Your task to perform on an android device: find which apps use the phone's location Image 0: 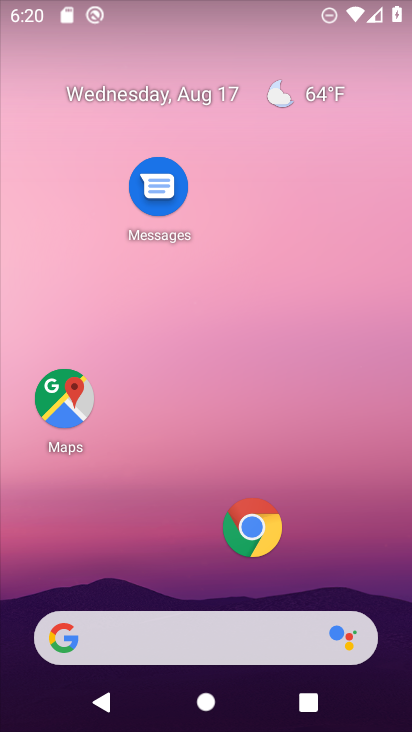
Step 0: drag from (152, 614) to (202, 253)
Your task to perform on an android device: find which apps use the phone's location Image 1: 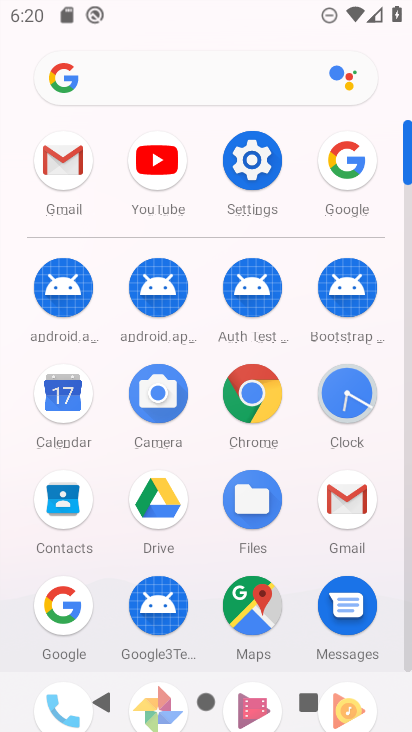
Step 1: click (241, 165)
Your task to perform on an android device: find which apps use the phone's location Image 2: 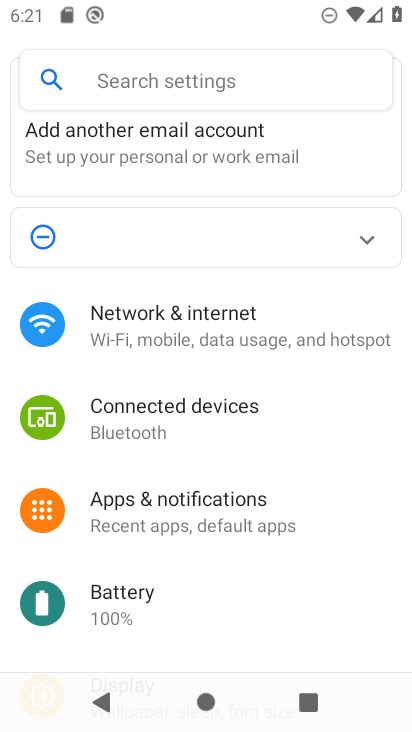
Step 2: drag from (183, 646) to (177, 344)
Your task to perform on an android device: find which apps use the phone's location Image 3: 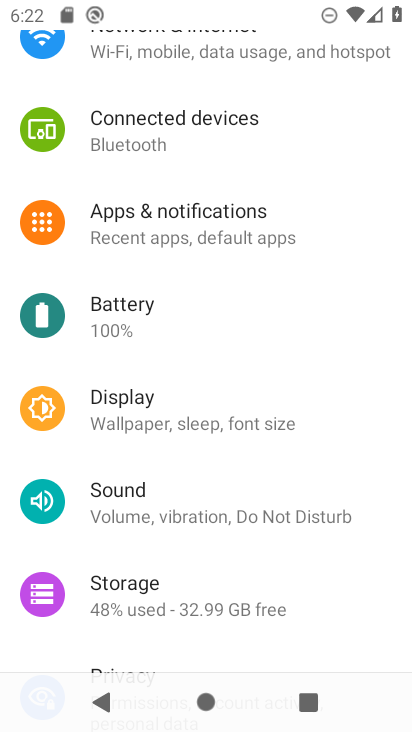
Step 3: drag from (162, 123) to (106, 519)
Your task to perform on an android device: find which apps use the phone's location Image 4: 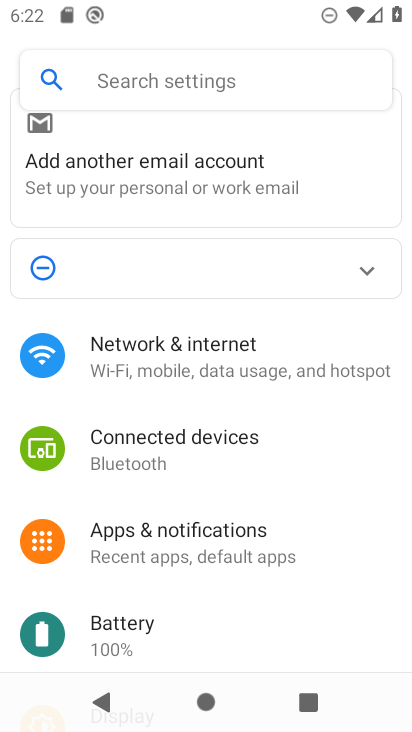
Step 4: drag from (136, 607) to (106, 244)
Your task to perform on an android device: find which apps use the phone's location Image 5: 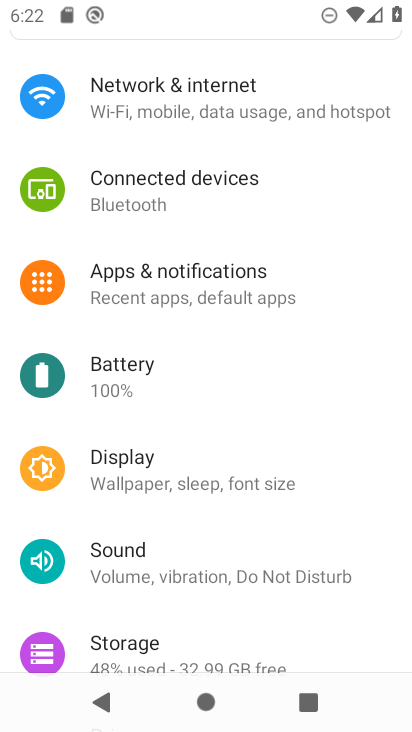
Step 5: drag from (135, 638) to (102, 230)
Your task to perform on an android device: find which apps use the phone's location Image 6: 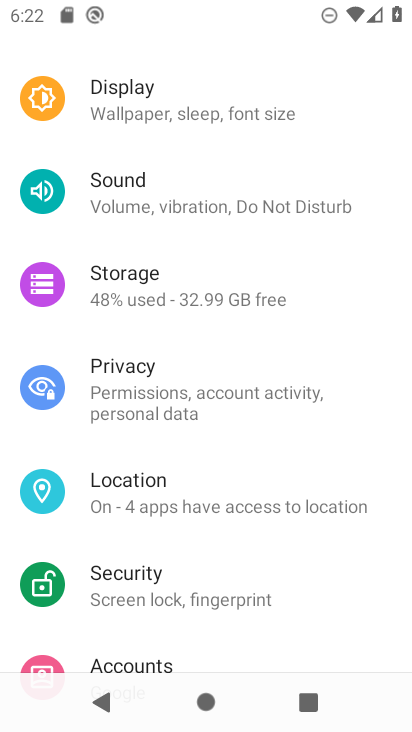
Step 6: click (104, 484)
Your task to perform on an android device: find which apps use the phone's location Image 7: 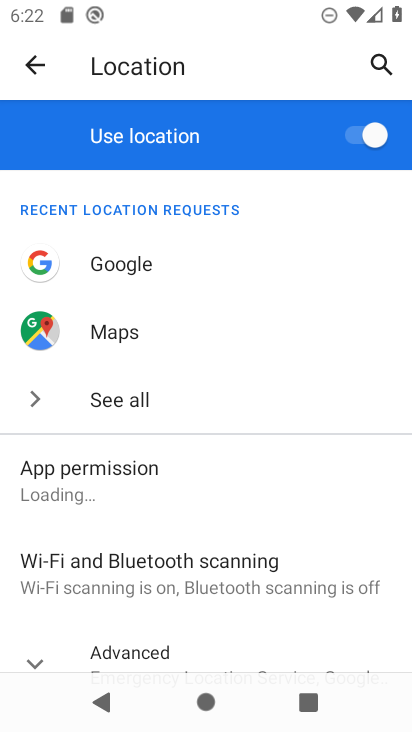
Step 7: drag from (84, 573) to (81, 240)
Your task to perform on an android device: find which apps use the phone's location Image 8: 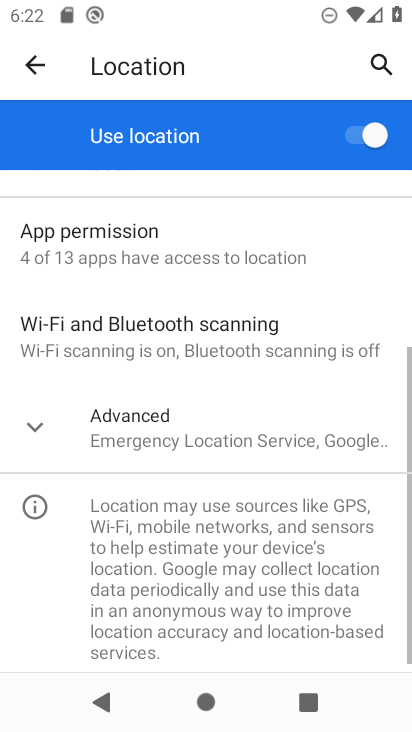
Step 8: click (81, 424)
Your task to perform on an android device: find which apps use the phone's location Image 9: 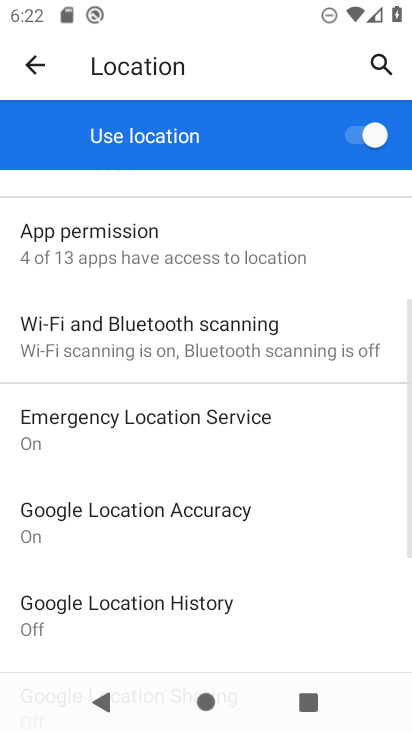
Step 9: drag from (94, 632) to (90, 259)
Your task to perform on an android device: find which apps use the phone's location Image 10: 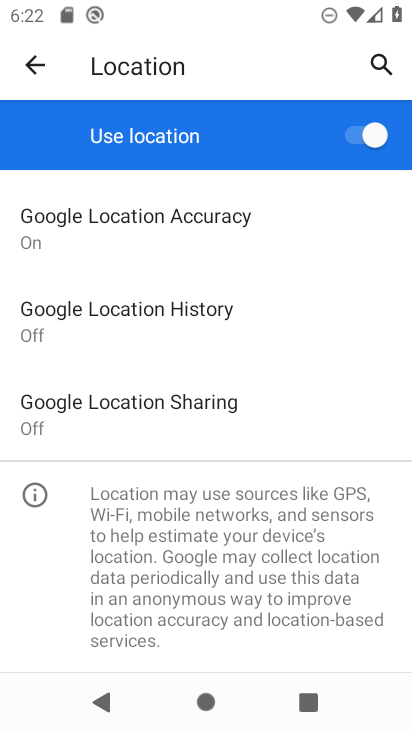
Step 10: drag from (188, 175) to (182, 583)
Your task to perform on an android device: find which apps use the phone's location Image 11: 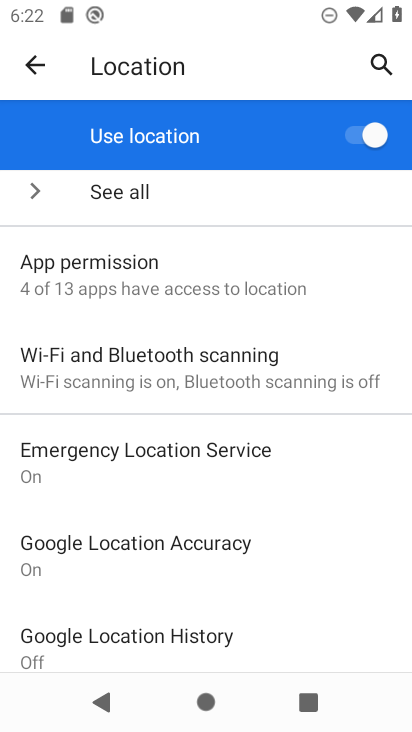
Step 11: drag from (105, 243) to (105, 586)
Your task to perform on an android device: find which apps use the phone's location Image 12: 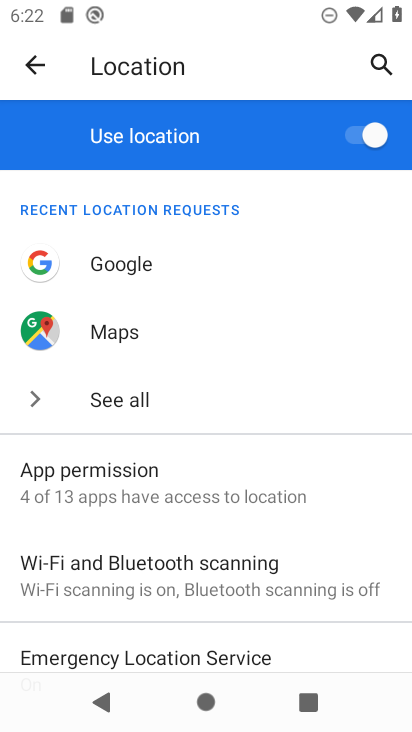
Step 12: click (62, 458)
Your task to perform on an android device: find which apps use the phone's location Image 13: 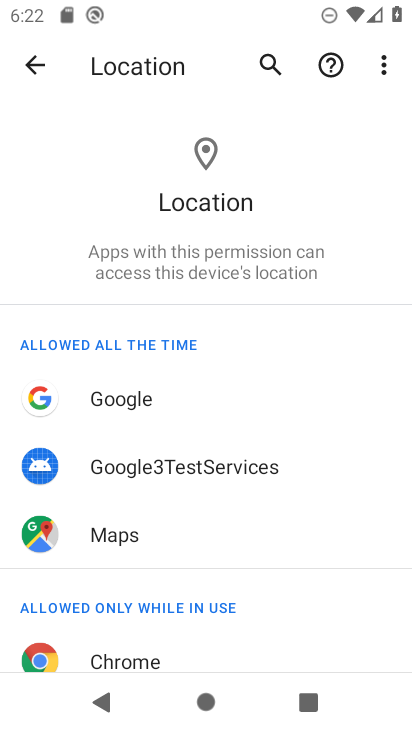
Step 13: task complete